Your task to perform on an android device: Search for seafood restaurants on Google Maps Image 0: 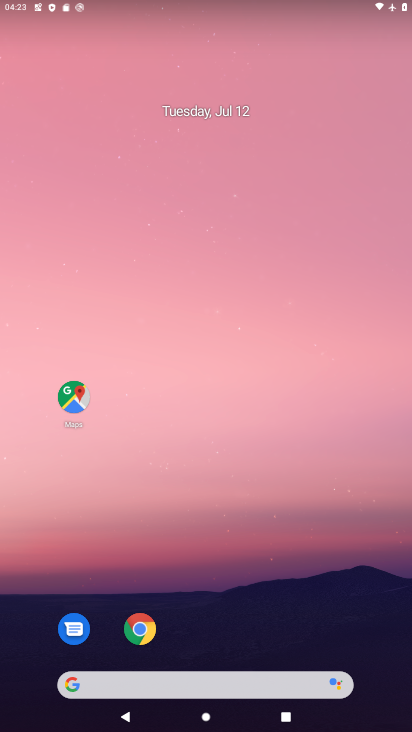
Step 0: drag from (297, 571) to (259, 92)
Your task to perform on an android device: Search for seafood restaurants on Google Maps Image 1: 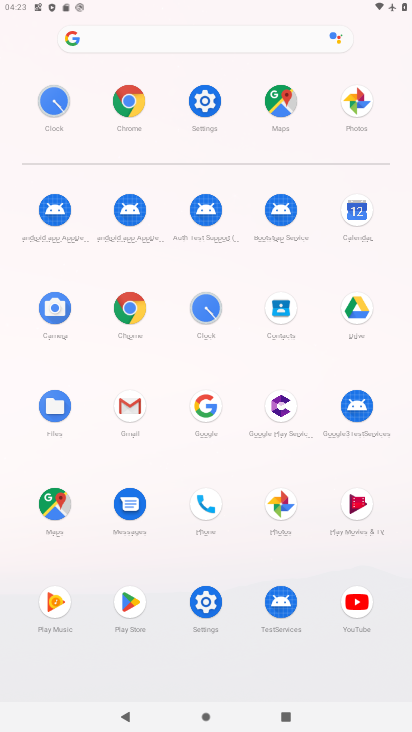
Step 1: click (276, 102)
Your task to perform on an android device: Search for seafood restaurants on Google Maps Image 2: 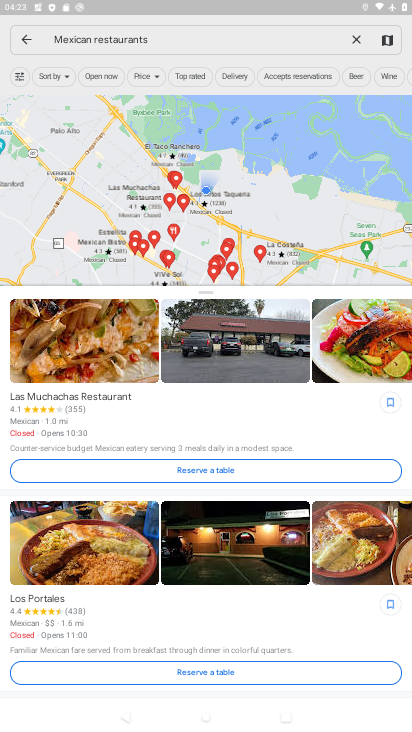
Step 2: click (279, 47)
Your task to perform on an android device: Search for seafood restaurants on Google Maps Image 3: 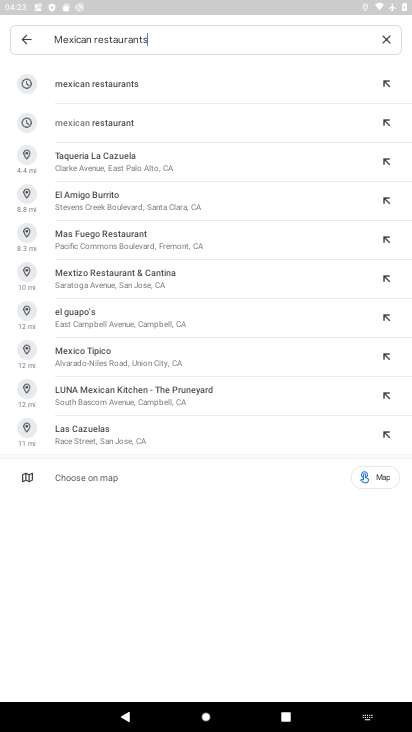
Step 3: click (389, 41)
Your task to perform on an android device: Search for seafood restaurants on Google Maps Image 4: 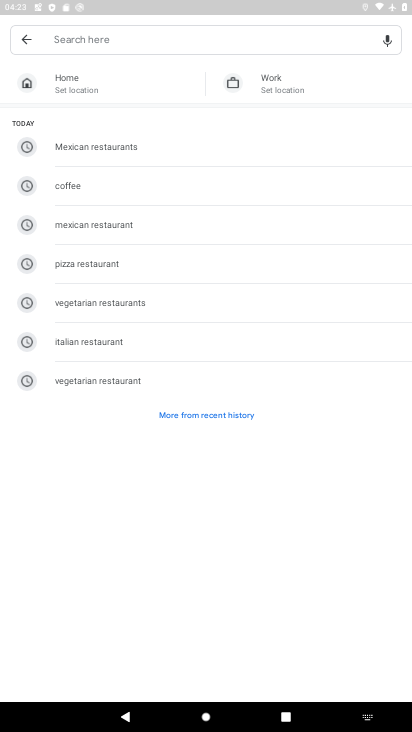
Step 4: type "seafood restaurants"
Your task to perform on an android device: Search for seafood restaurants on Google Maps Image 5: 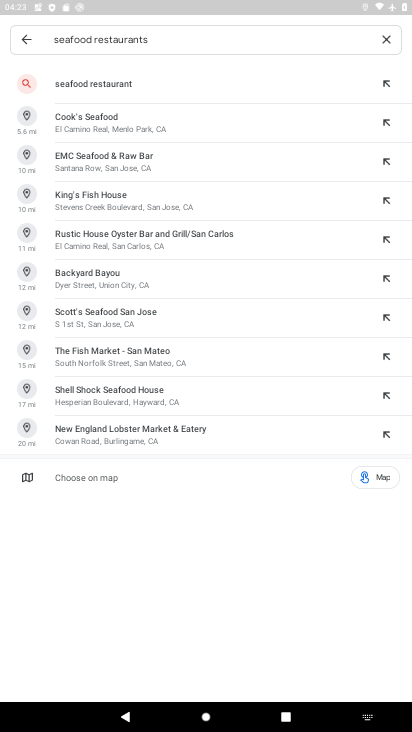
Step 5: press enter
Your task to perform on an android device: Search for seafood restaurants on Google Maps Image 6: 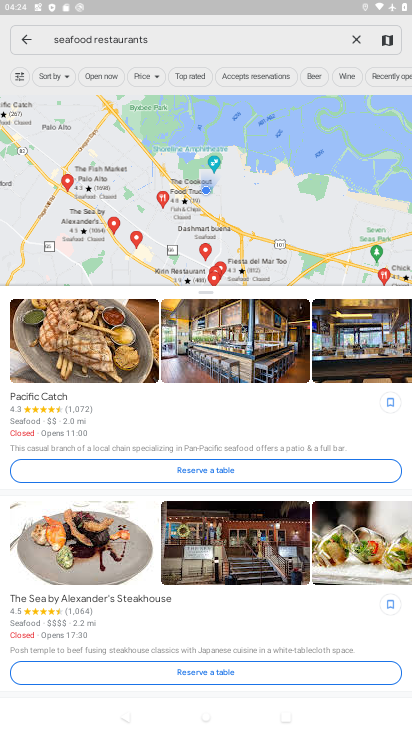
Step 6: task complete